Your task to perform on an android device: Open Youtube and go to the subscriptions tab Image 0: 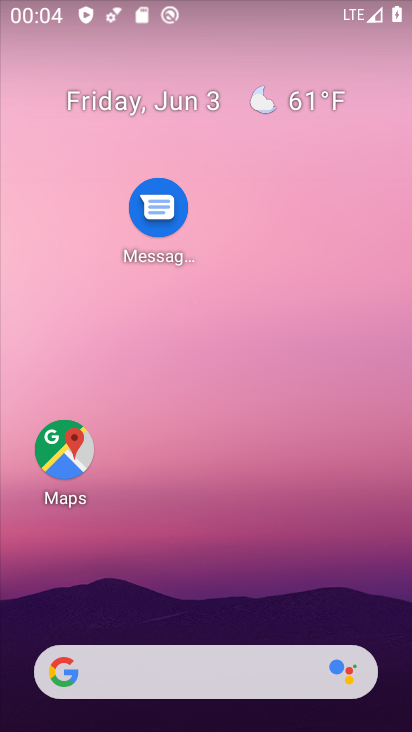
Step 0: drag from (226, 644) to (184, 37)
Your task to perform on an android device: Open Youtube and go to the subscriptions tab Image 1: 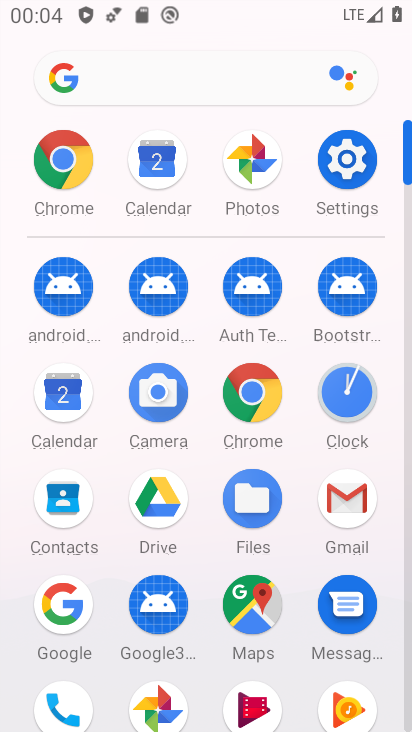
Step 1: drag from (206, 597) to (167, 263)
Your task to perform on an android device: Open Youtube and go to the subscriptions tab Image 2: 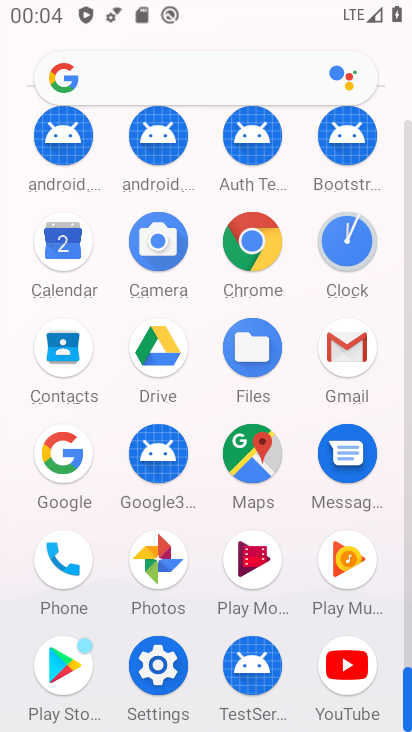
Step 2: click (350, 661)
Your task to perform on an android device: Open Youtube and go to the subscriptions tab Image 3: 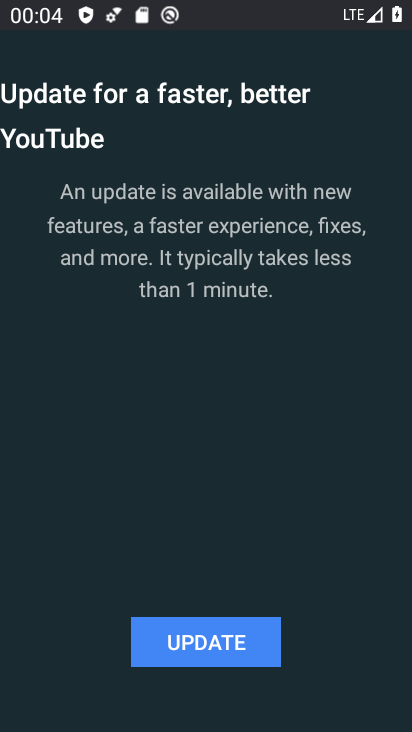
Step 3: click (280, 647)
Your task to perform on an android device: Open Youtube and go to the subscriptions tab Image 4: 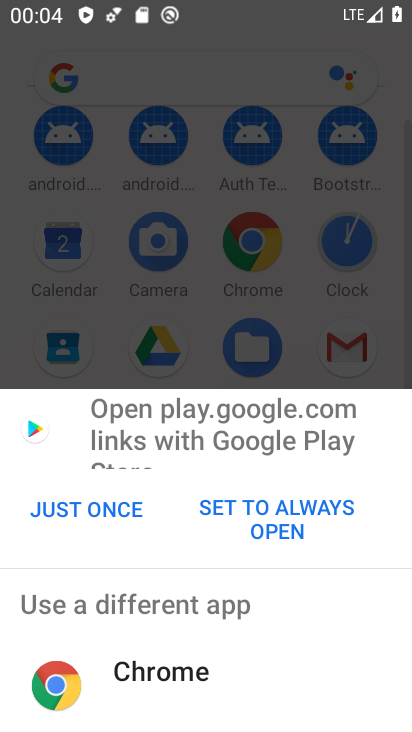
Step 4: click (106, 513)
Your task to perform on an android device: Open Youtube and go to the subscriptions tab Image 5: 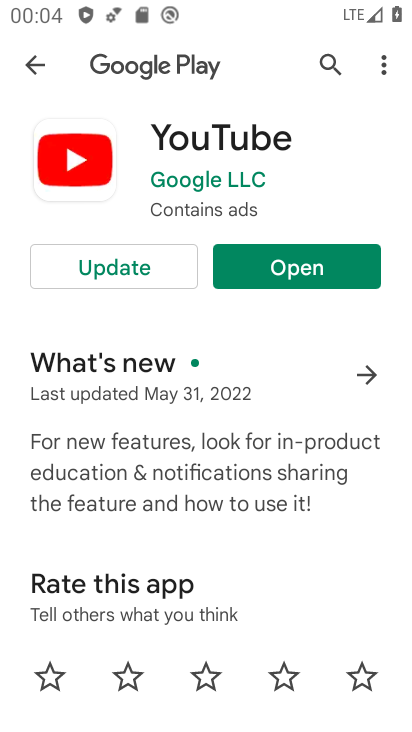
Step 5: click (181, 268)
Your task to perform on an android device: Open Youtube and go to the subscriptions tab Image 6: 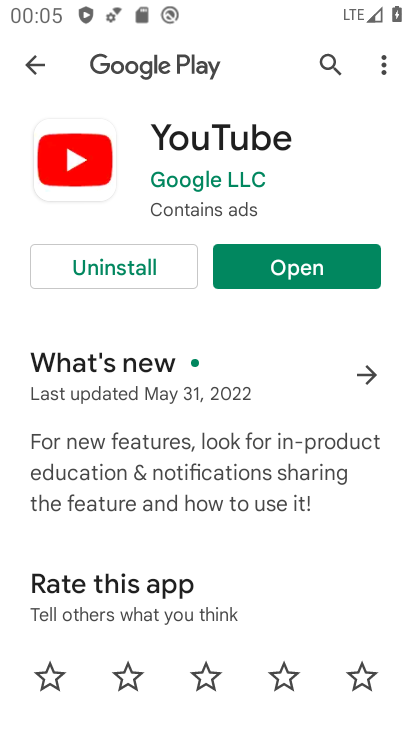
Step 6: click (264, 272)
Your task to perform on an android device: Open Youtube and go to the subscriptions tab Image 7: 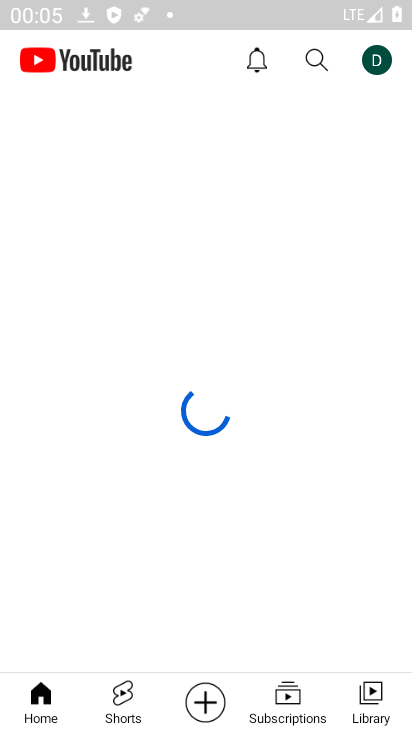
Step 7: click (297, 707)
Your task to perform on an android device: Open Youtube and go to the subscriptions tab Image 8: 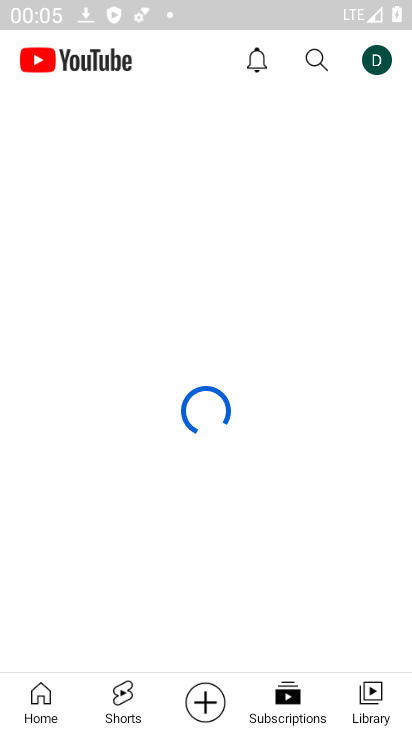
Step 8: task complete